Your task to perform on an android device: toggle wifi Image 0: 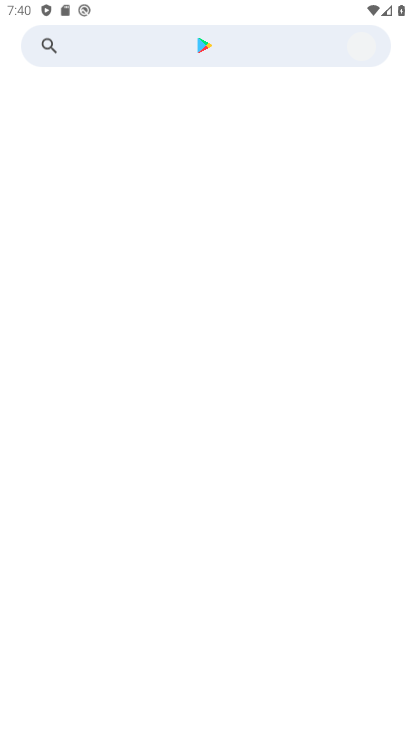
Step 0: press home button
Your task to perform on an android device: toggle wifi Image 1: 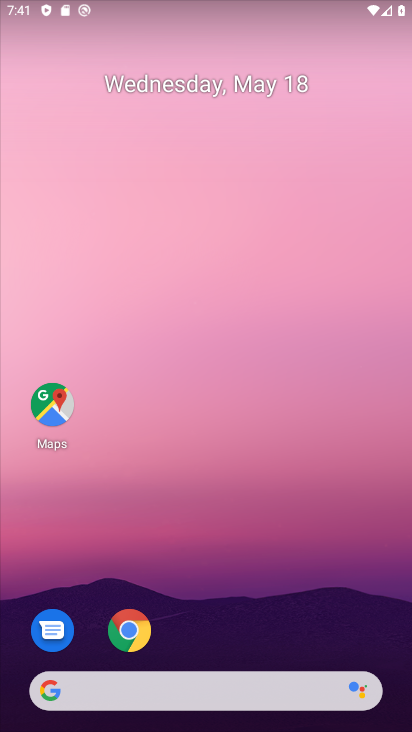
Step 1: drag from (180, 692) to (368, 65)
Your task to perform on an android device: toggle wifi Image 2: 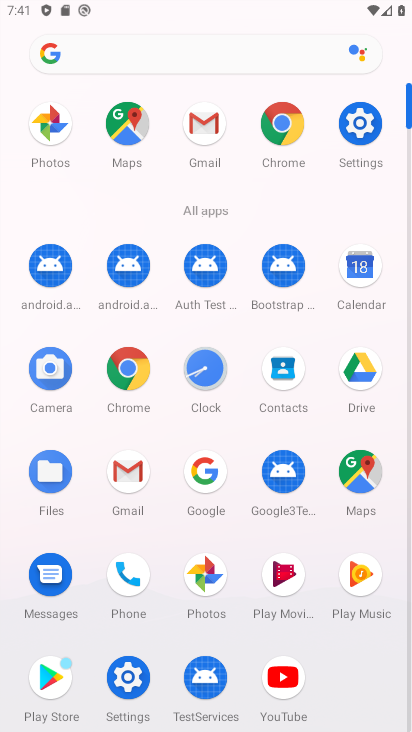
Step 2: click (360, 124)
Your task to perform on an android device: toggle wifi Image 3: 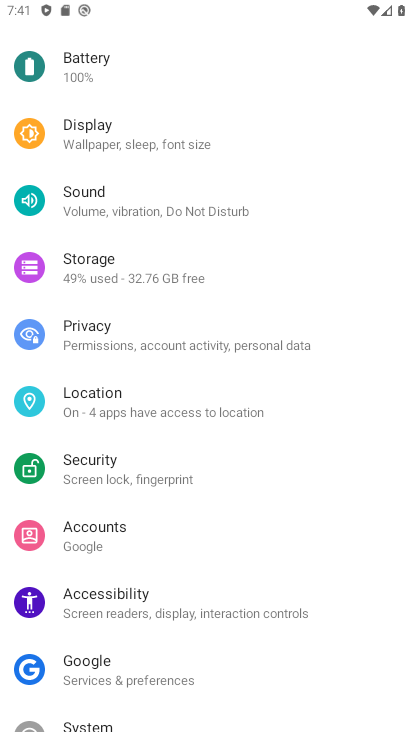
Step 3: drag from (347, 120) to (241, 575)
Your task to perform on an android device: toggle wifi Image 4: 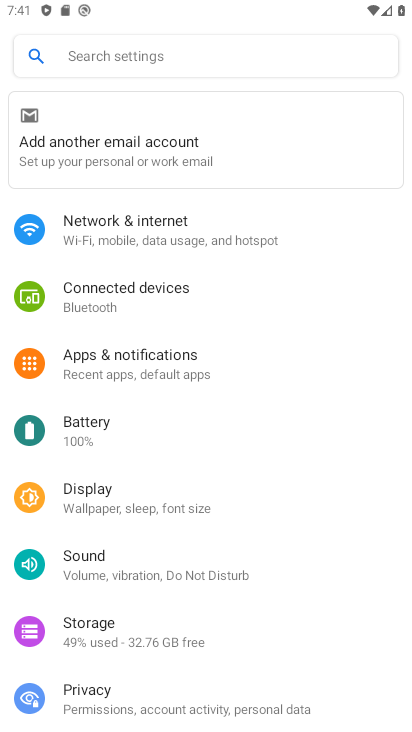
Step 4: click (148, 219)
Your task to perform on an android device: toggle wifi Image 5: 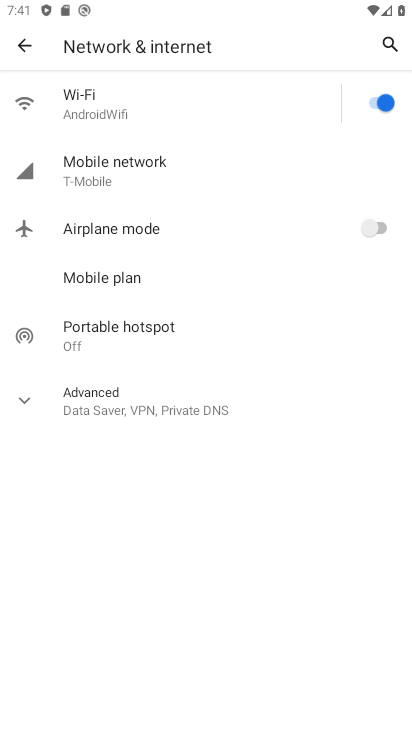
Step 5: click (372, 101)
Your task to perform on an android device: toggle wifi Image 6: 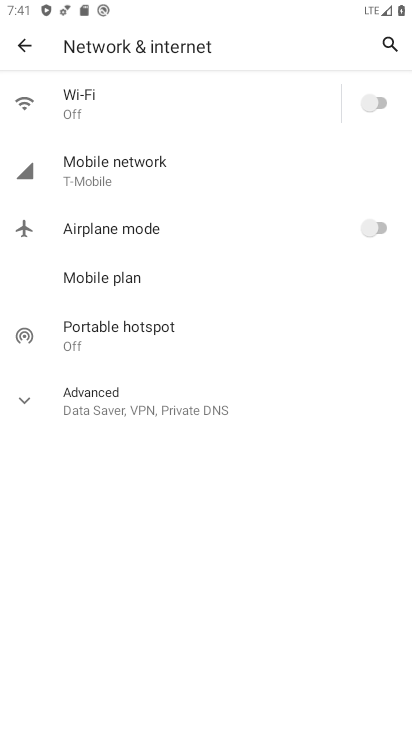
Step 6: task complete